Your task to perform on an android device: clear all cookies in the chrome app Image 0: 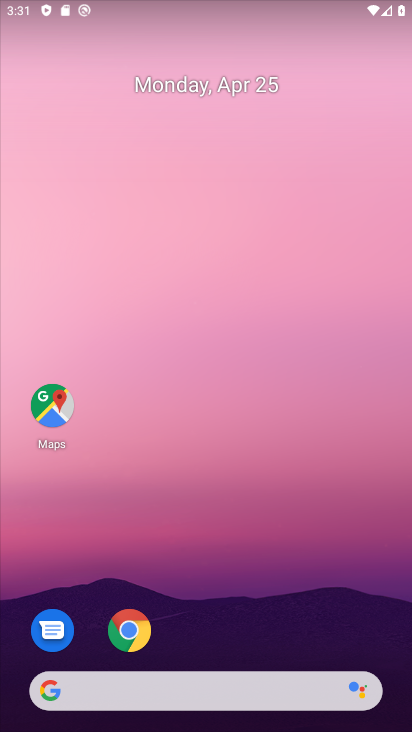
Step 0: drag from (294, 606) to (332, 139)
Your task to perform on an android device: clear all cookies in the chrome app Image 1: 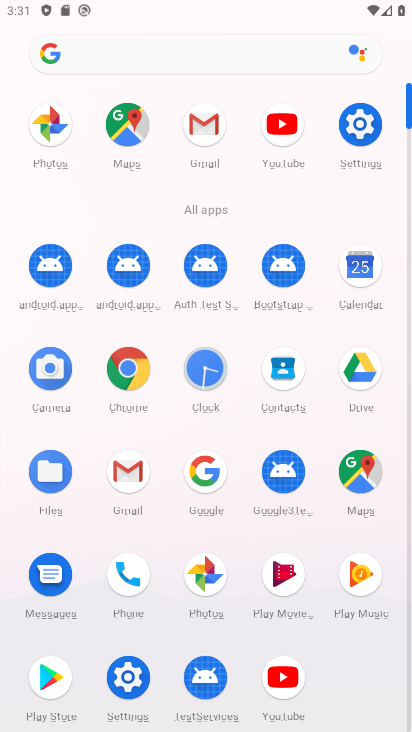
Step 1: click (123, 377)
Your task to perform on an android device: clear all cookies in the chrome app Image 2: 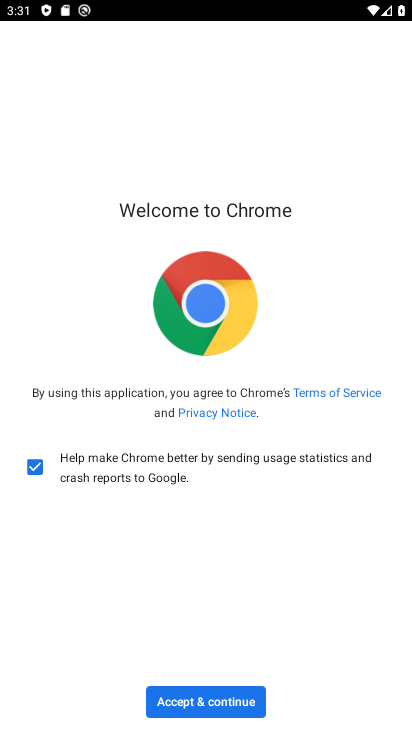
Step 2: click (182, 705)
Your task to perform on an android device: clear all cookies in the chrome app Image 3: 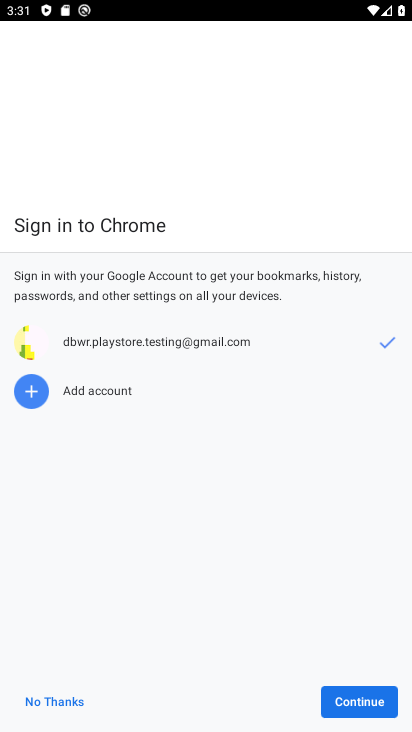
Step 3: click (54, 705)
Your task to perform on an android device: clear all cookies in the chrome app Image 4: 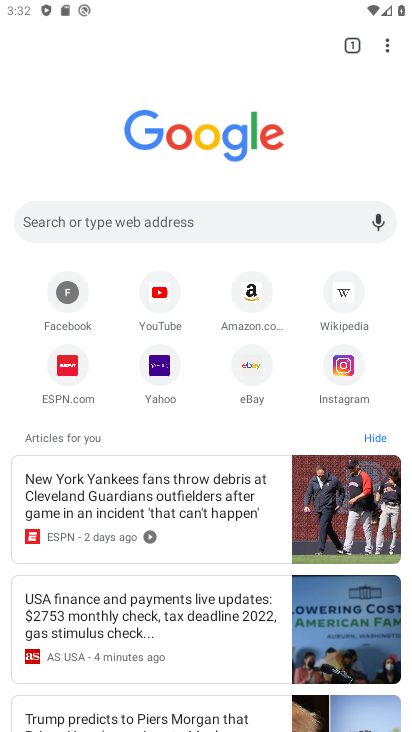
Step 4: drag from (383, 56) to (238, 384)
Your task to perform on an android device: clear all cookies in the chrome app Image 5: 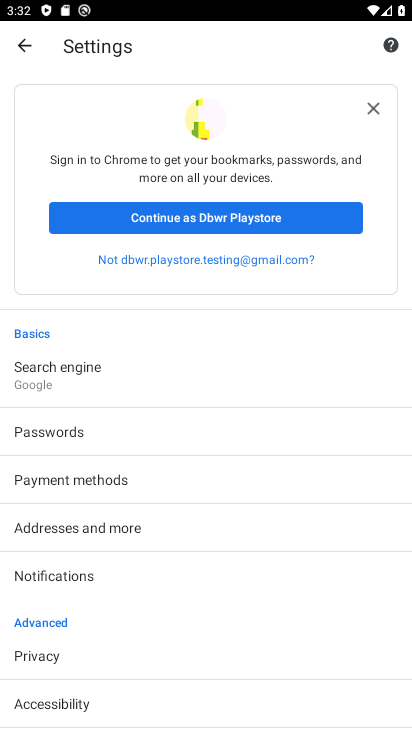
Step 5: drag from (141, 601) to (170, 255)
Your task to perform on an android device: clear all cookies in the chrome app Image 6: 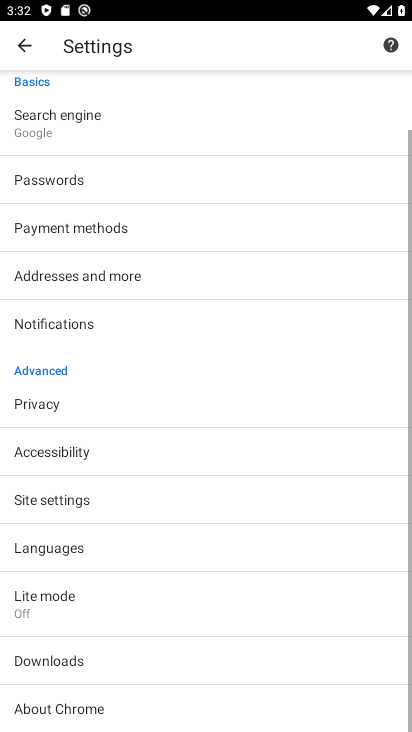
Step 6: drag from (164, 600) to (188, 230)
Your task to perform on an android device: clear all cookies in the chrome app Image 7: 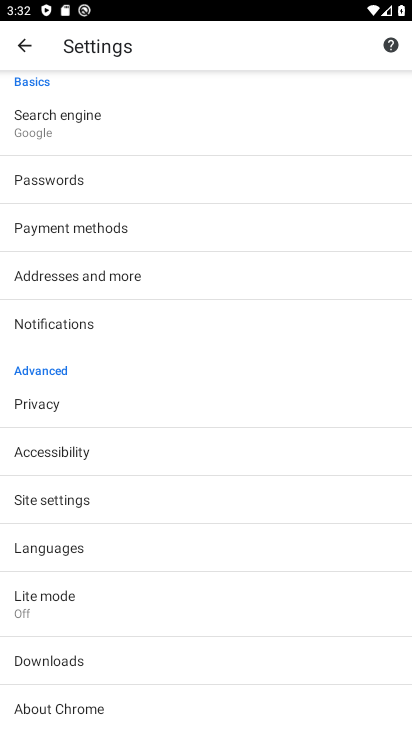
Step 7: click (73, 506)
Your task to perform on an android device: clear all cookies in the chrome app Image 8: 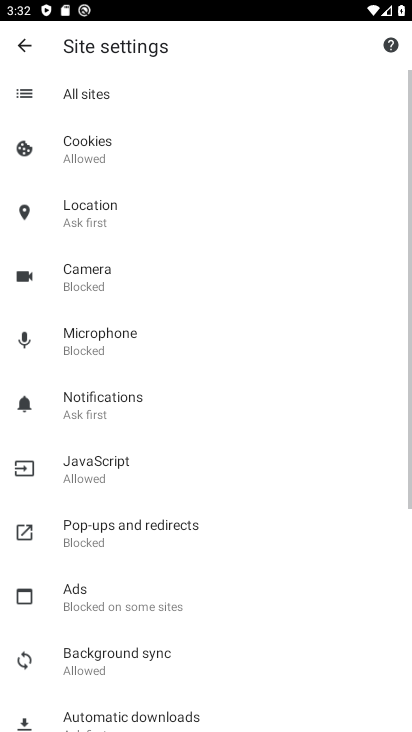
Step 8: task complete